Your task to perform on an android device: Open Google Maps Image 0: 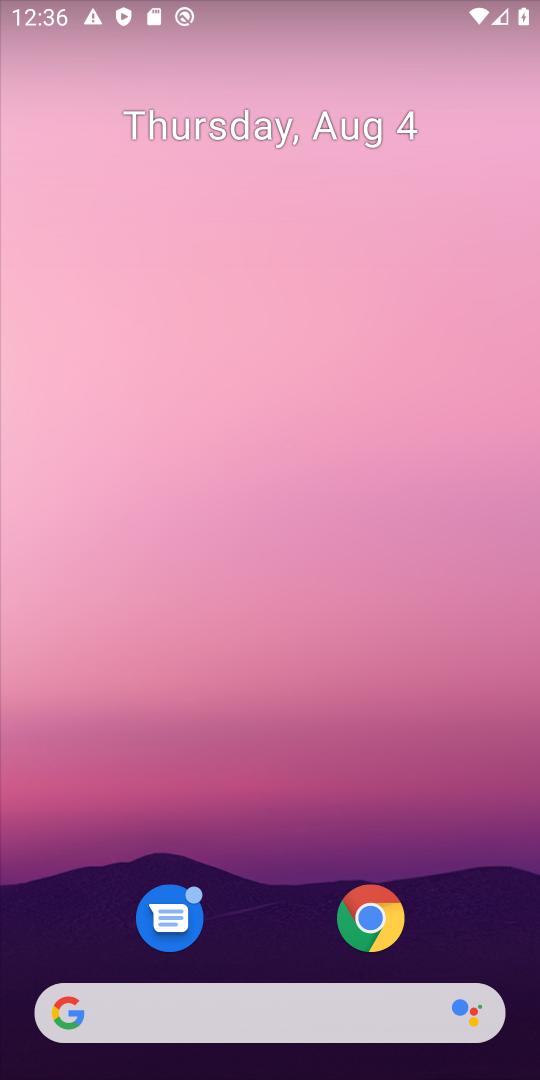
Step 0: click (330, 155)
Your task to perform on an android device: Open Google Maps Image 1: 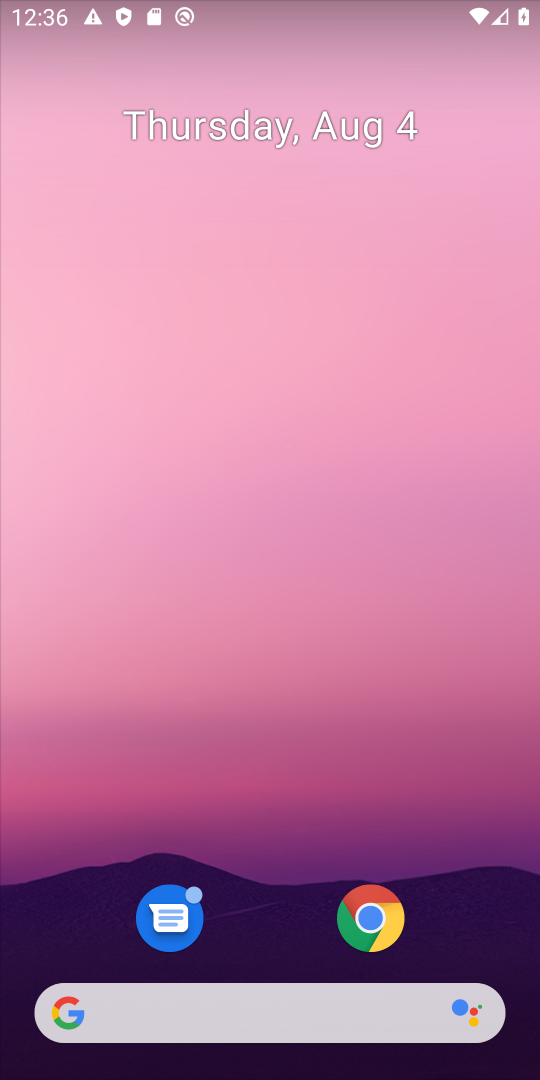
Step 1: click (213, 327)
Your task to perform on an android device: Open Google Maps Image 2: 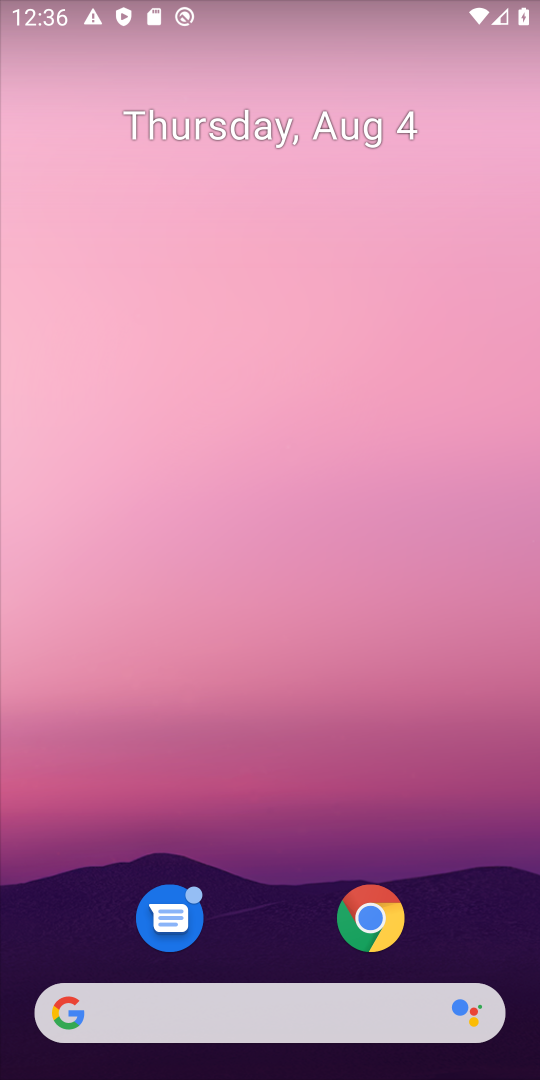
Step 2: drag from (270, 882) to (228, 220)
Your task to perform on an android device: Open Google Maps Image 3: 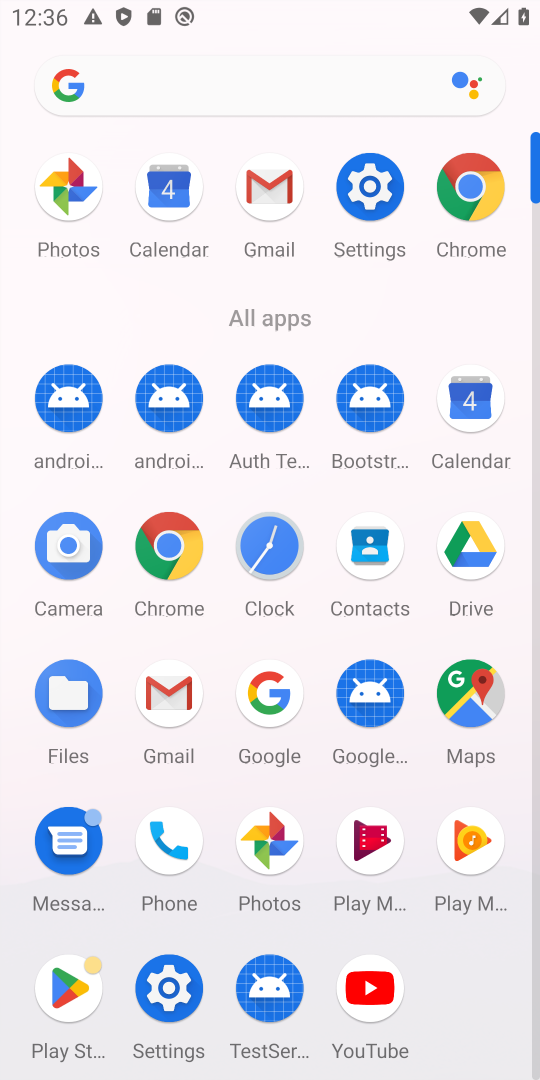
Step 3: click (455, 679)
Your task to perform on an android device: Open Google Maps Image 4: 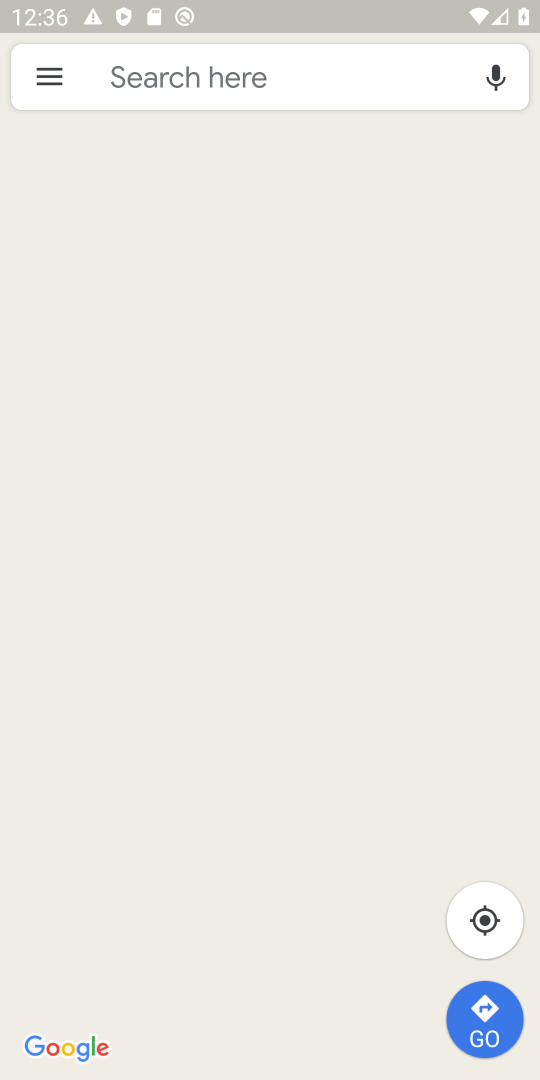
Step 4: task complete